Your task to perform on an android device: Empty the shopping cart on walmart.com. Add "razer blade" to the cart on walmart.com Image 0: 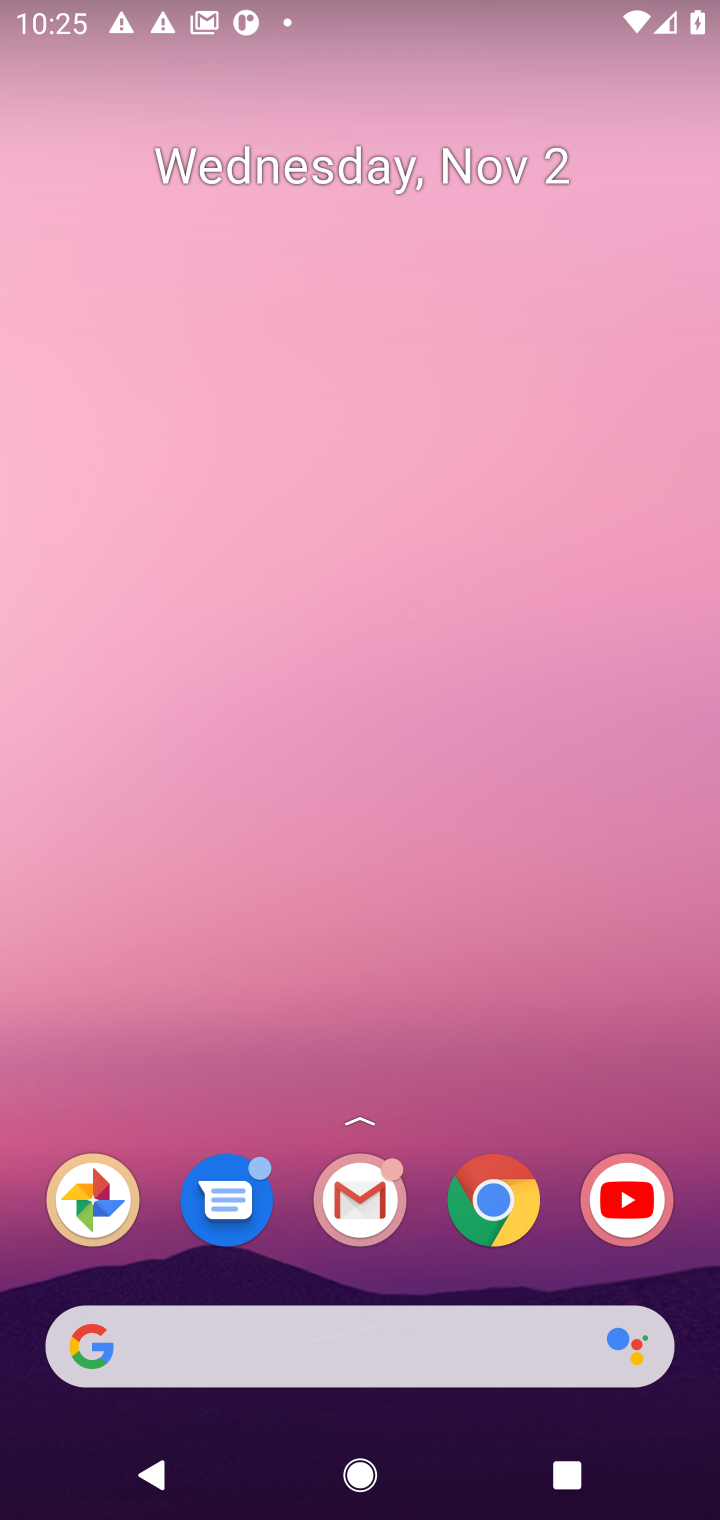
Step 0: click (478, 1213)
Your task to perform on an android device: Empty the shopping cart on walmart.com. Add "razer blade" to the cart on walmart.com Image 1: 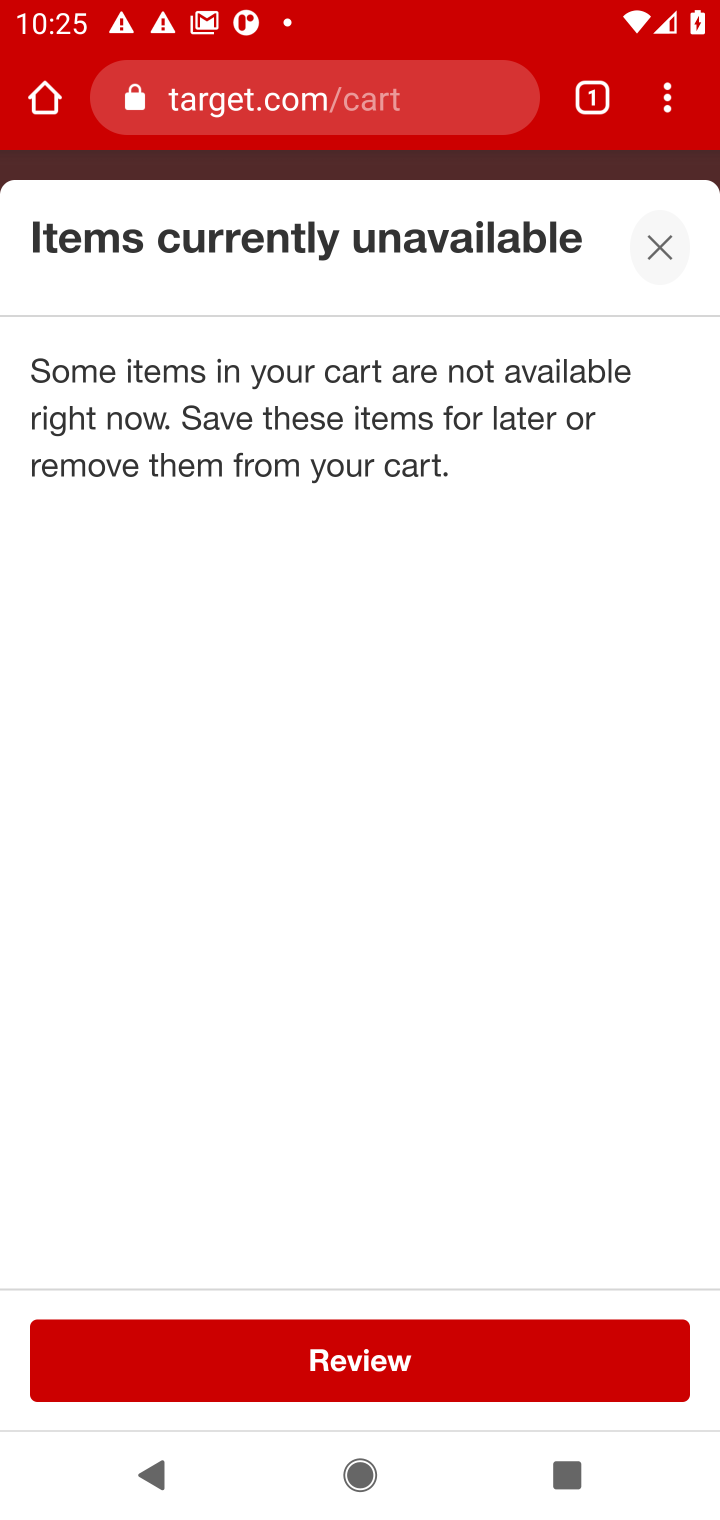
Step 1: click (439, 91)
Your task to perform on an android device: Empty the shopping cart on walmart.com. Add "razer blade" to the cart on walmart.com Image 2: 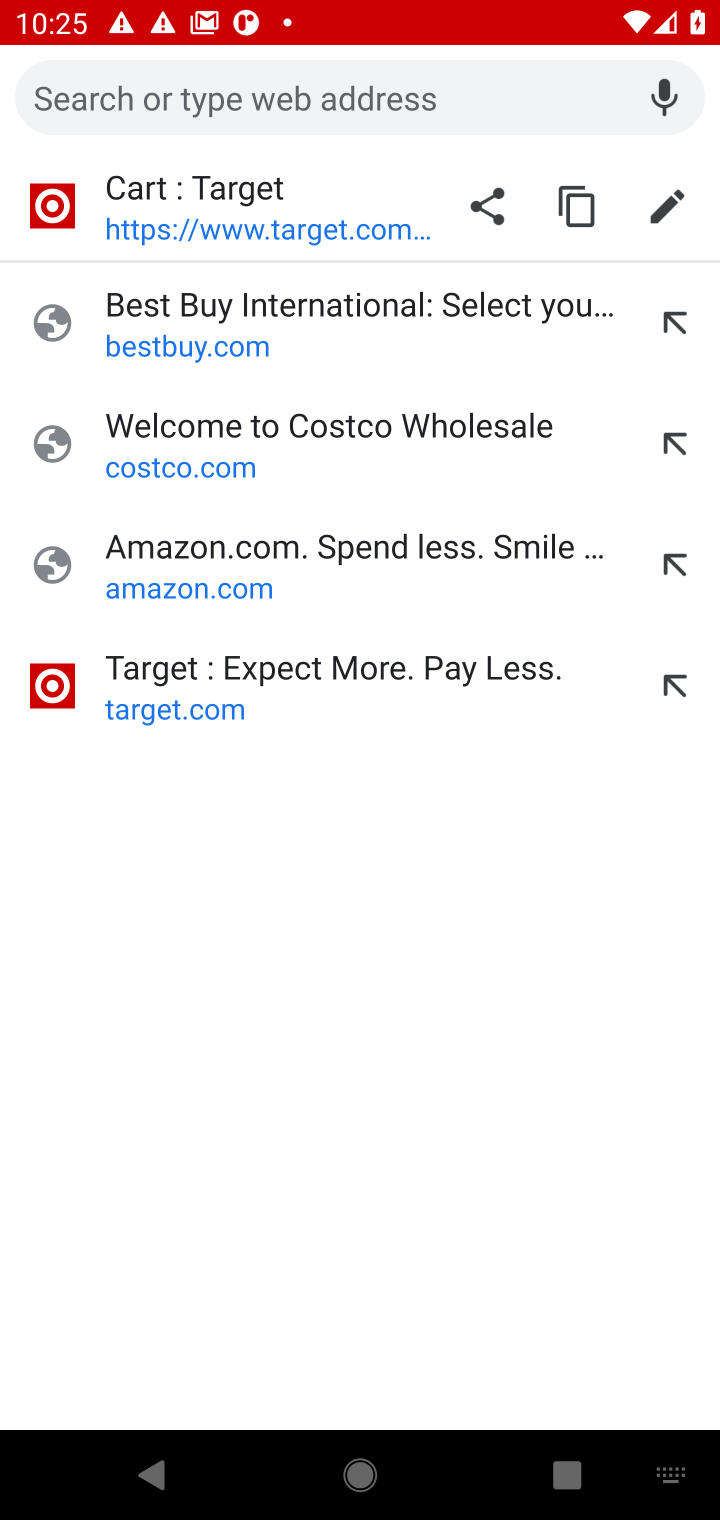
Step 2: type "walmart.com"
Your task to perform on an android device: Empty the shopping cart on walmart.com. Add "razer blade" to the cart on walmart.com Image 3: 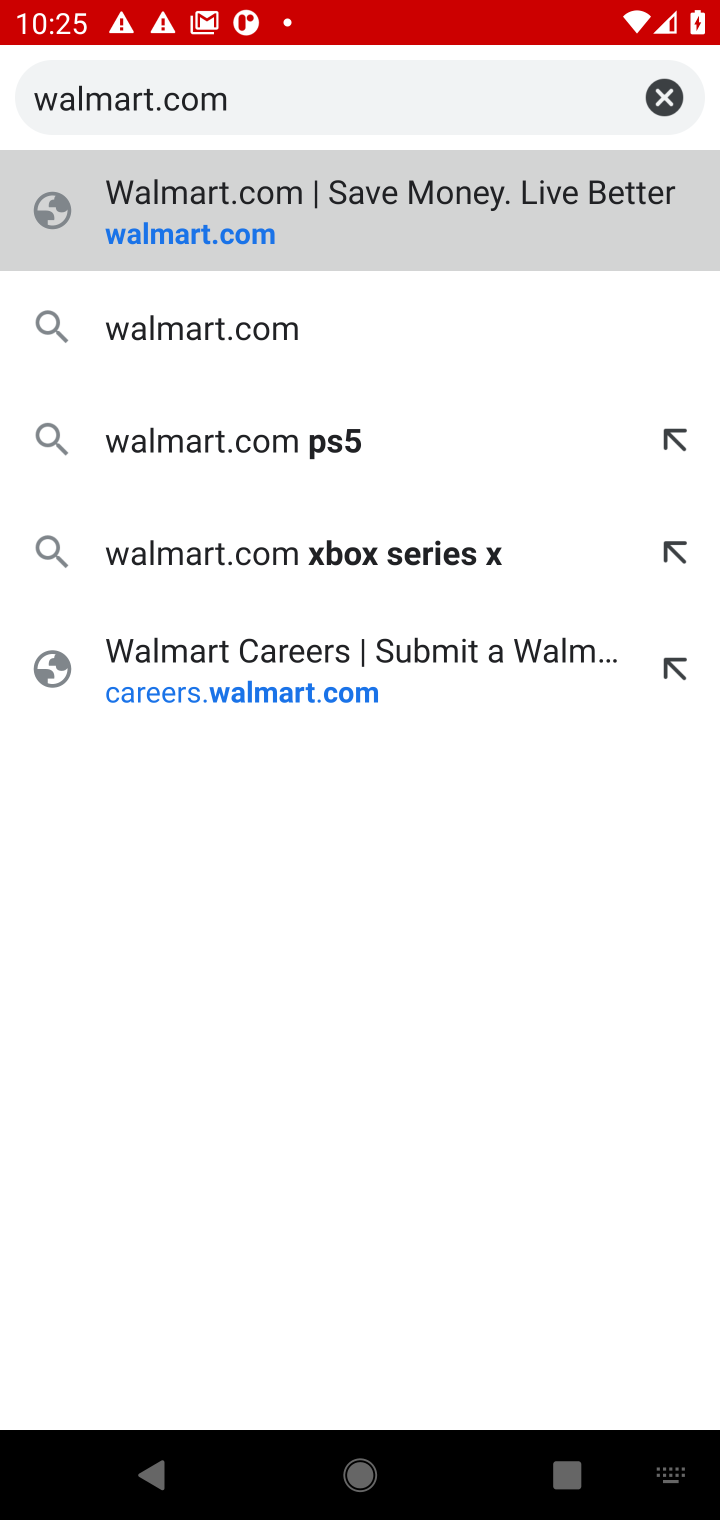
Step 3: press enter
Your task to perform on an android device: Empty the shopping cart on walmart.com. Add "razer blade" to the cart on walmart.com Image 4: 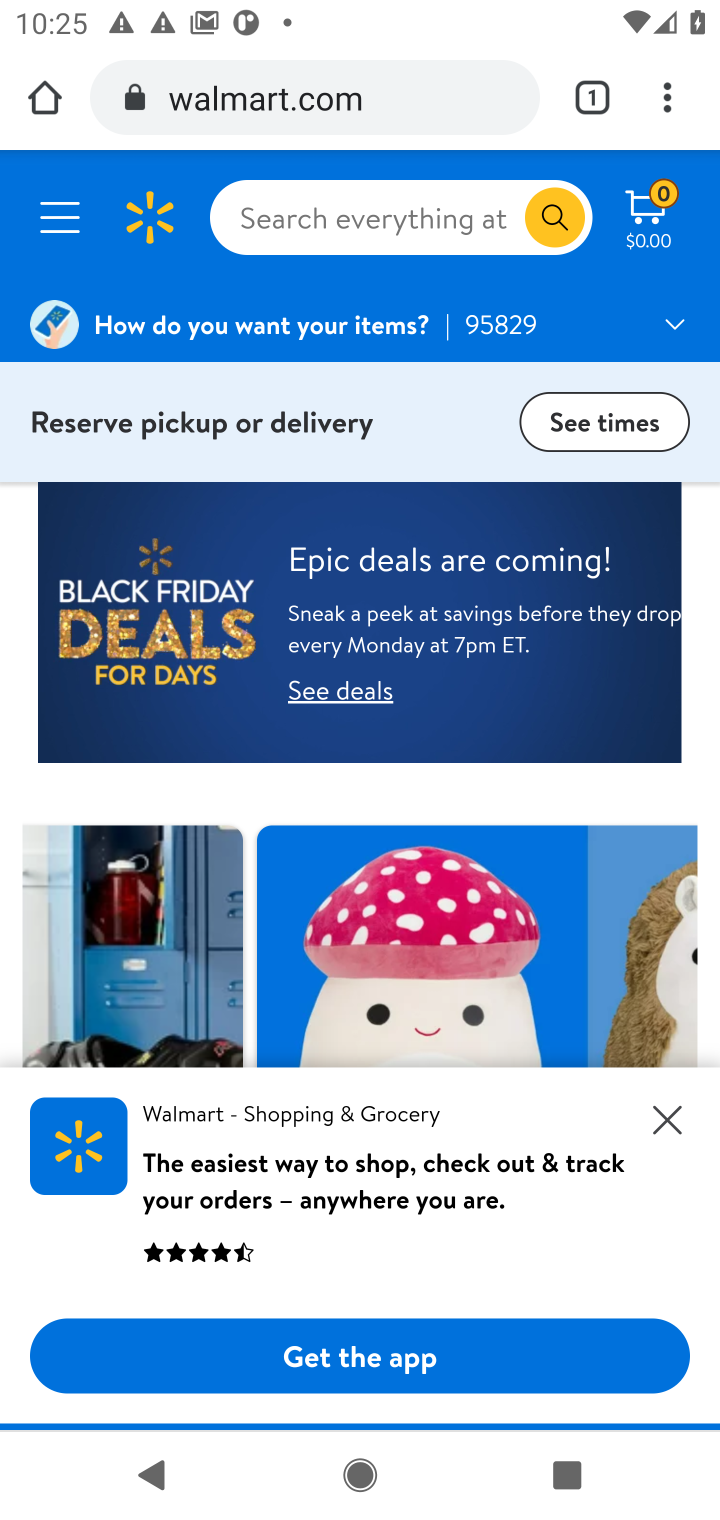
Step 4: click (641, 220)
Your task to perform on an android device: Empty the shopping cart on walmart.com. Add "razer blade" to the cart on walmart.com Image 5: 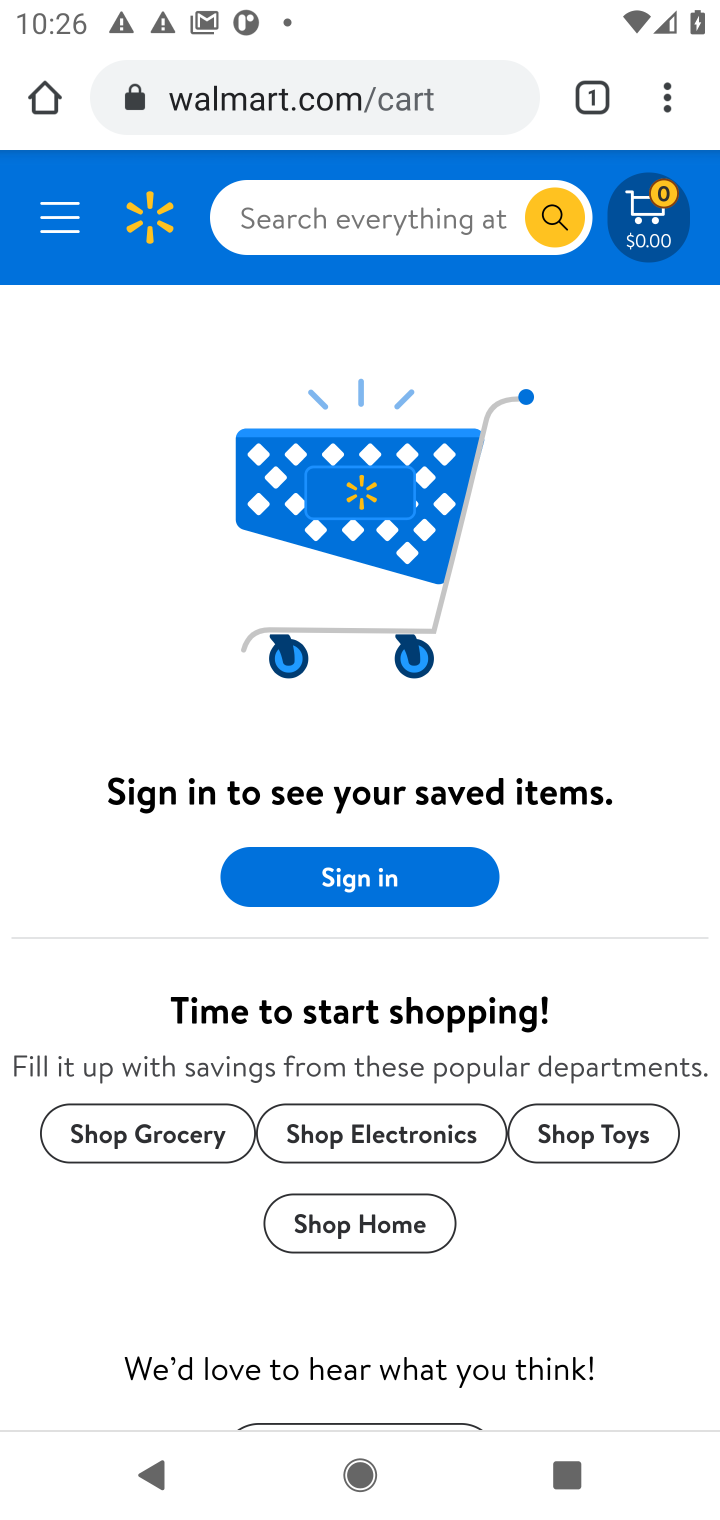
Step 5: click (393, 201)
Your task to perform on an android device: Empty the shopping cart on walmart.com. Add "razer blade" to the cart on walmart.com Image 6: 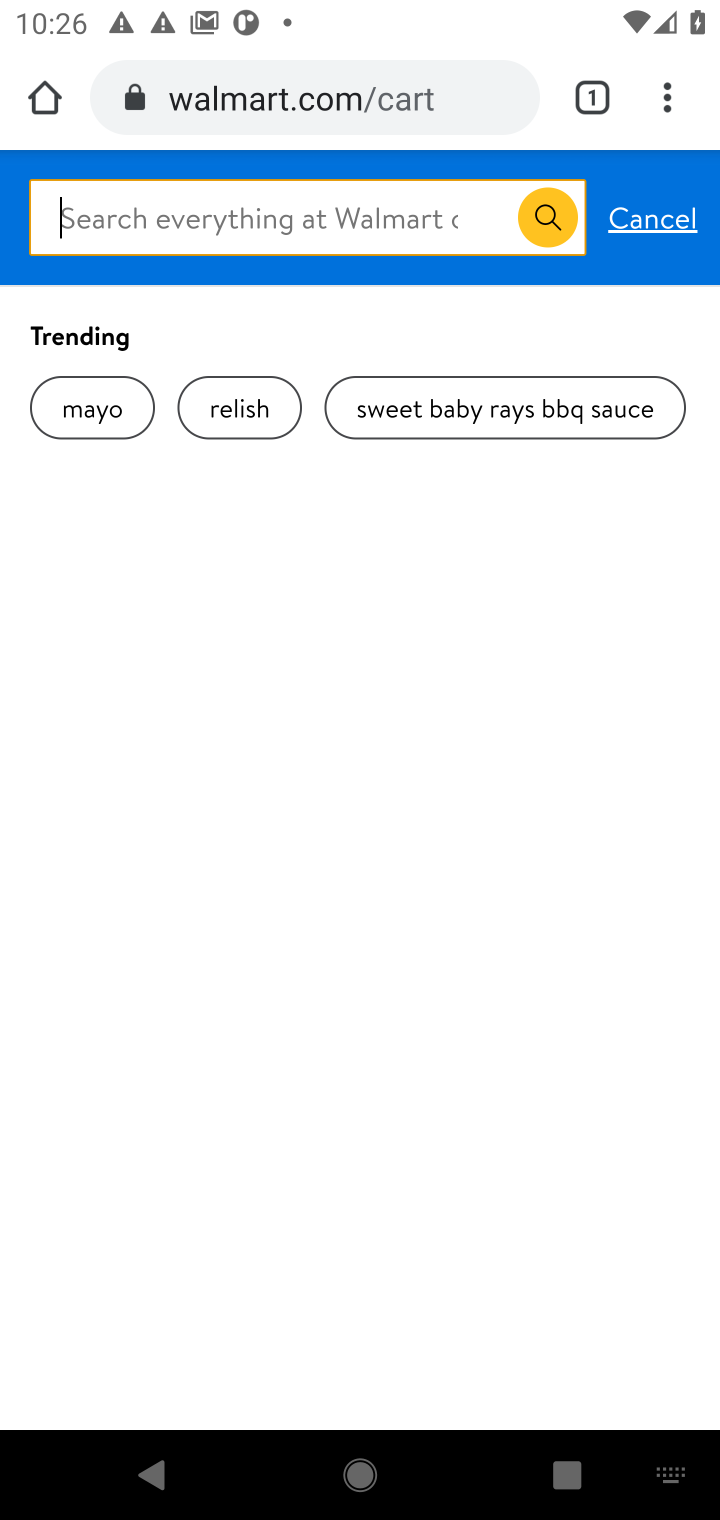
Step 6: type "razer blade"
Your task to perform on an android device: Empty the shopping cart on walmart.com. Add "razer blade" to the cart on walmart.com Image 7: 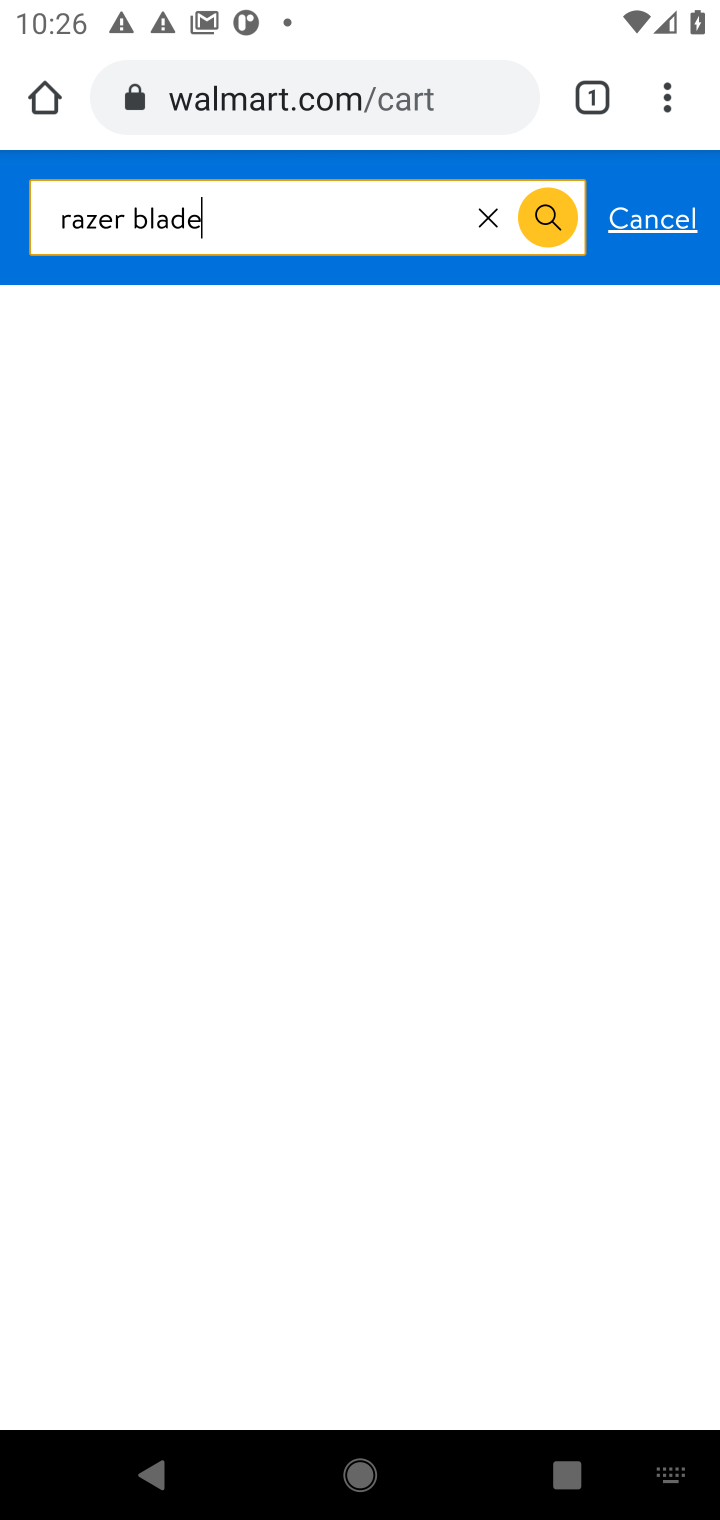
Step 7: press enter
Your task to perform on an android device: Empty the shopping cart on walmart.com. Add "razer blade" to the cart on walmart.com Image 8: 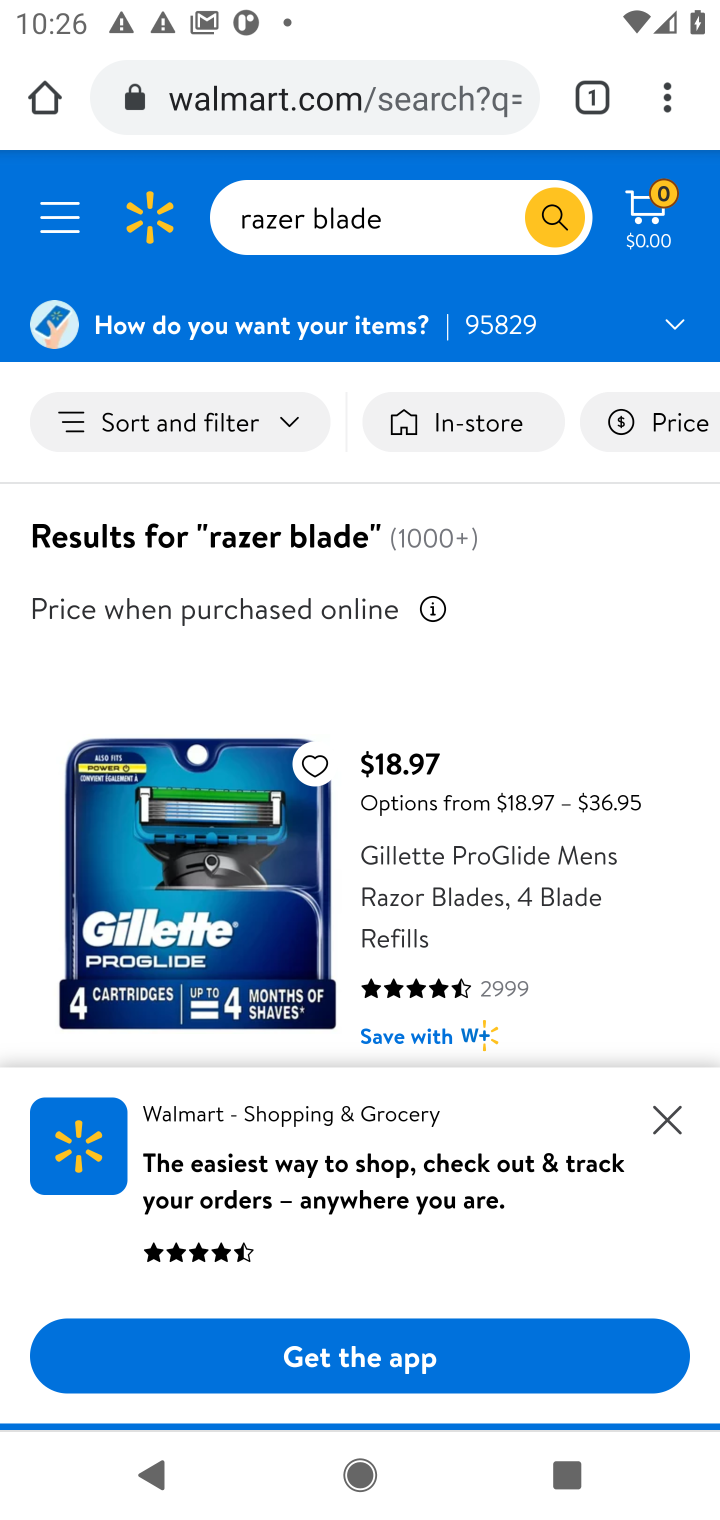
Step 8: click (666, 1110)
Your task to perform on an android device: Empty the shopping cart on walmart.com. Add "razer blade" to the cart on walmart.com Image 9: 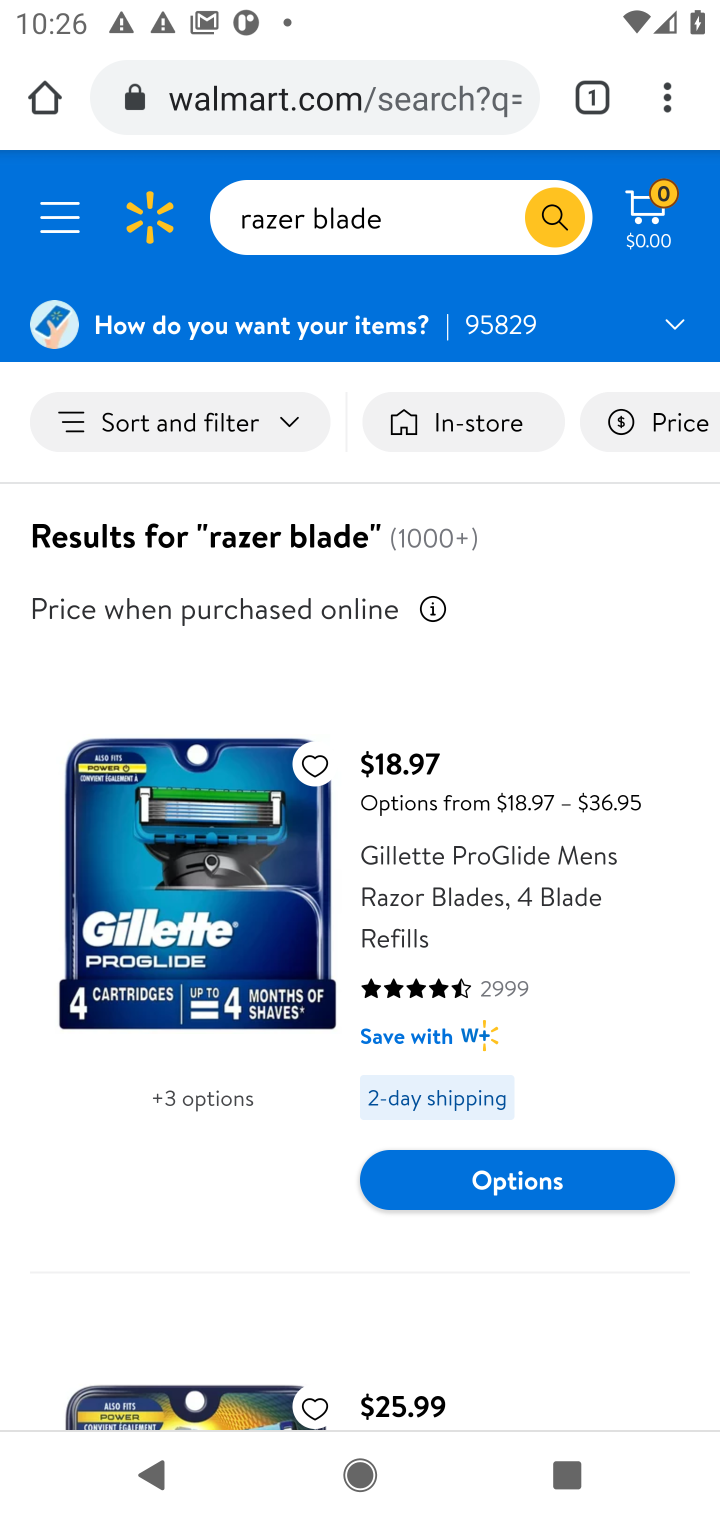
Step 9: click (227, 939)
Your task to perform on an android device: Empty the shopping cart on walmart.com. Add "razer blade" to the cart on walmart.com Image 10: 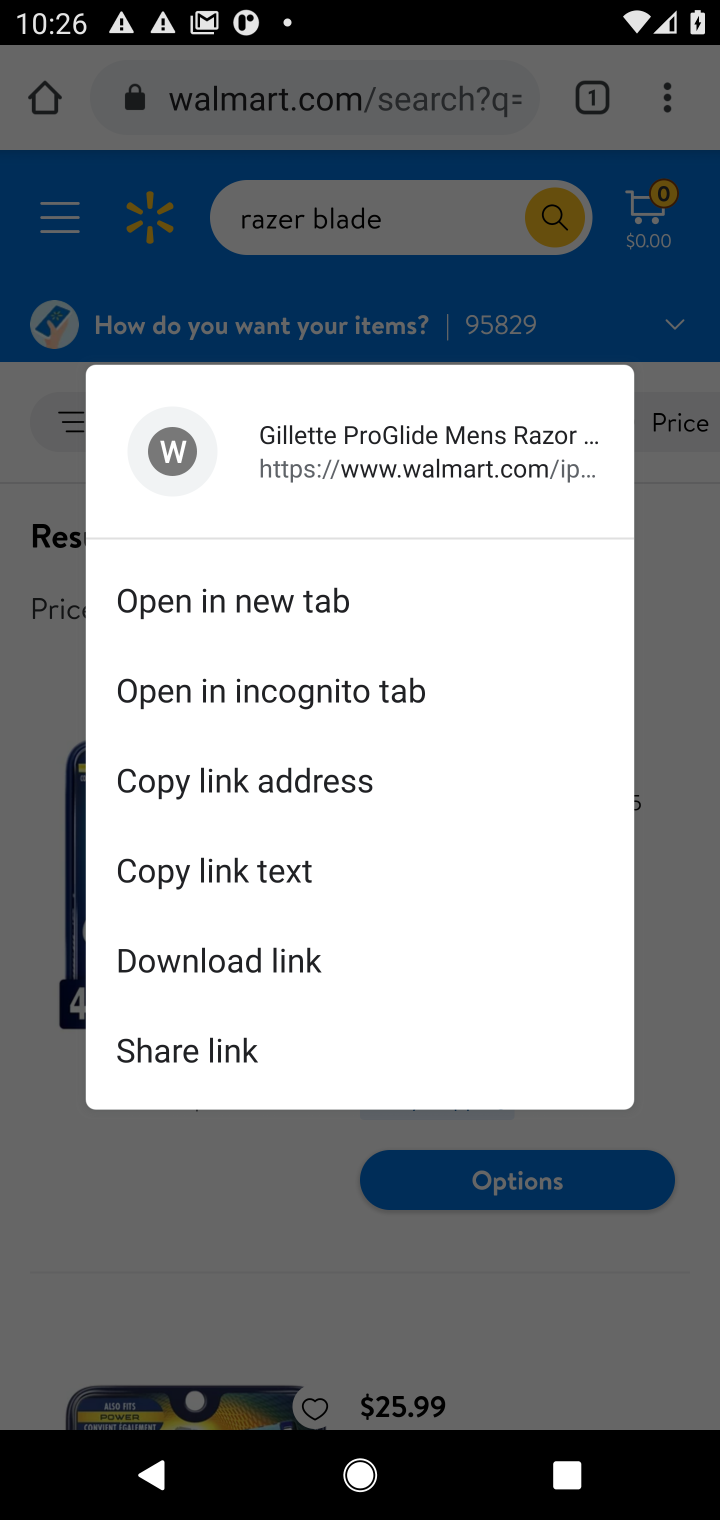
Step 10: click (265, 1241)
Your task to perform on an android device: Empty the shopping cart on walmart.com. Add "razer blade" to the cart on walmart.com Image 11: 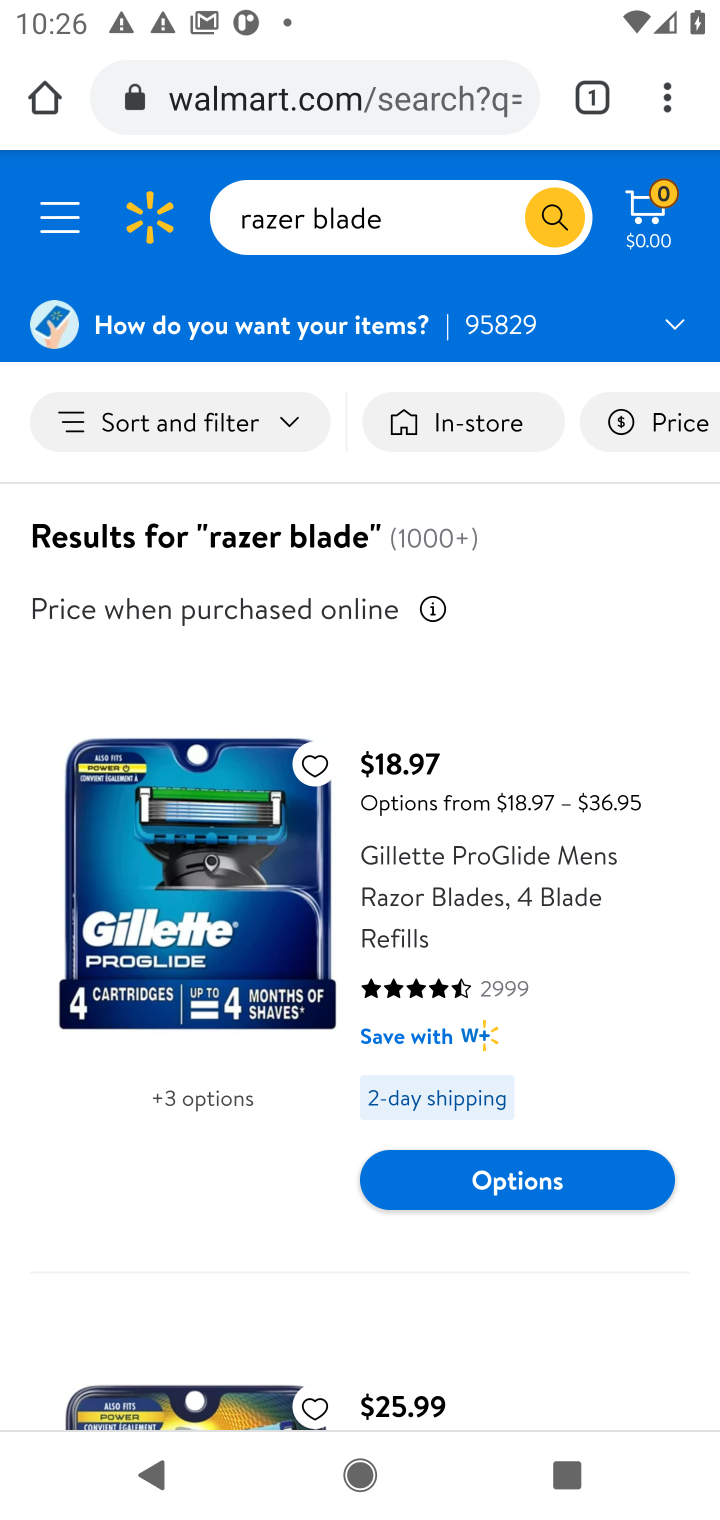
Step 11: click (98, 908)
Your task to perform on an android device: Empty the shopping cart on walmart.com. Add "razer blade" to the cart on walmart.com Image 12: 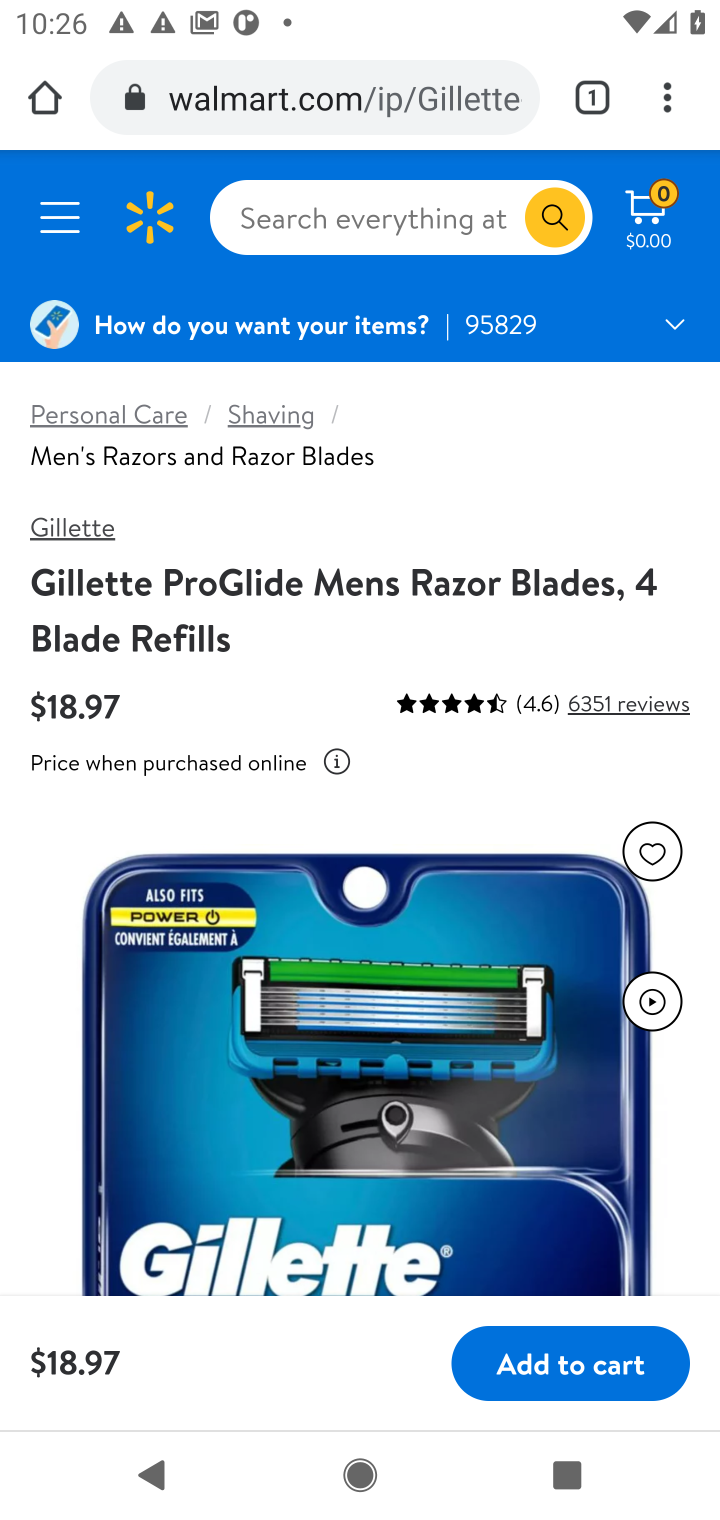
Step 12: click (558, 1371)
Your task to perform on an android device: Empty the shopping cart on walmart.com. Add "razer blade" to the cart on walmart.com Image 13: 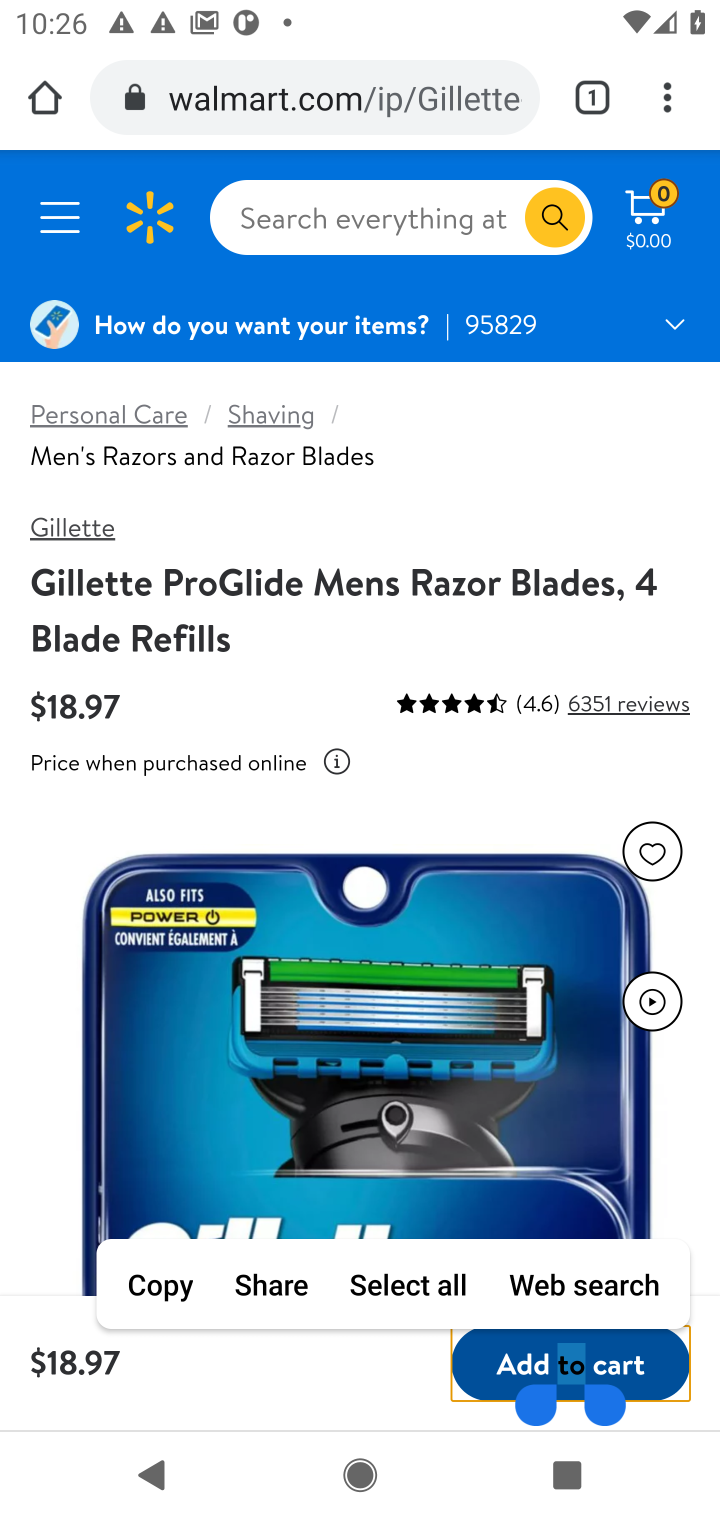
Step 13: click (268, 1405)
Your task to perform on an android device: Empty the shopping cart on walmart.com. Add "razer blade" to the cart on walmart.com Image 14: 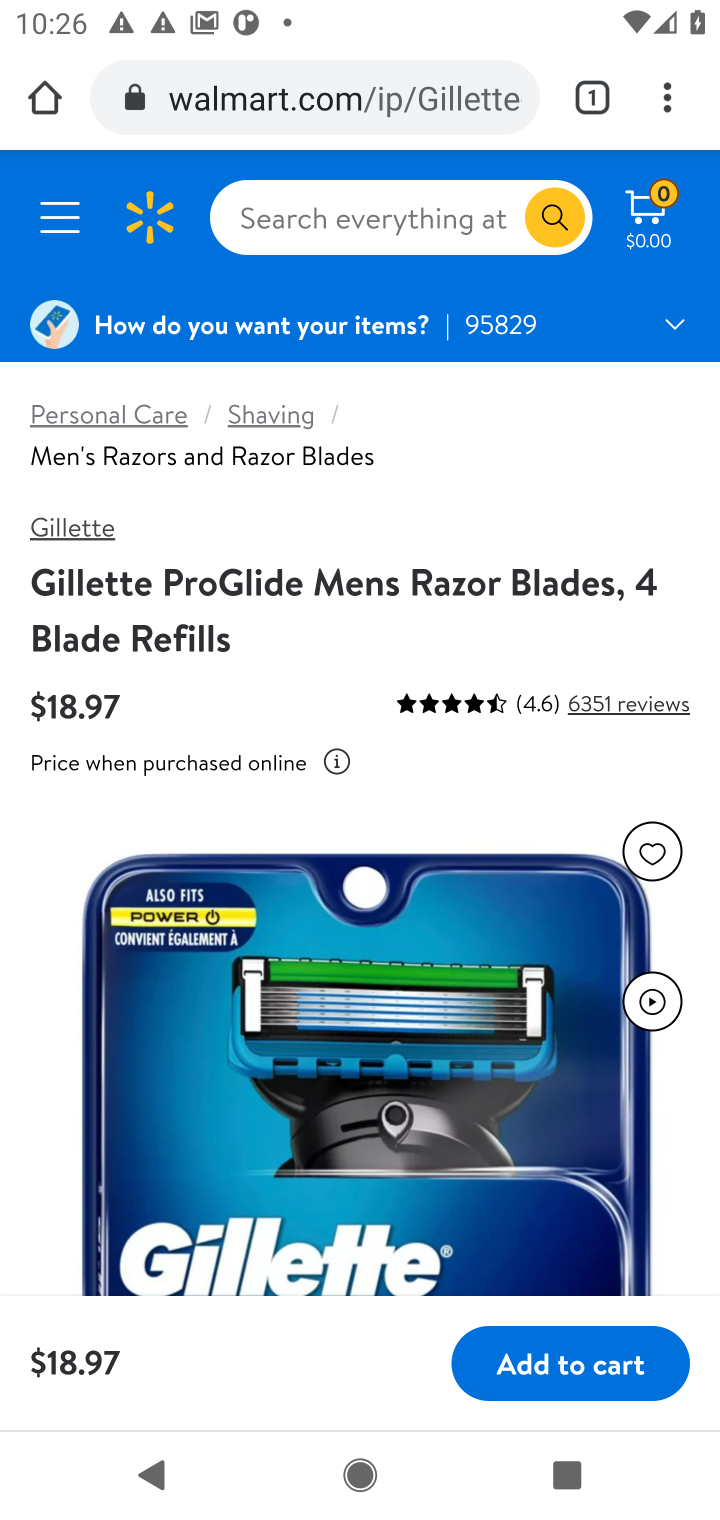
Step 14: click (545, 1365)
Your task to perform on an android device: Empty the shopping cart on walmart.com. Add "razer blade" to the cart on walmart.com Image 15: 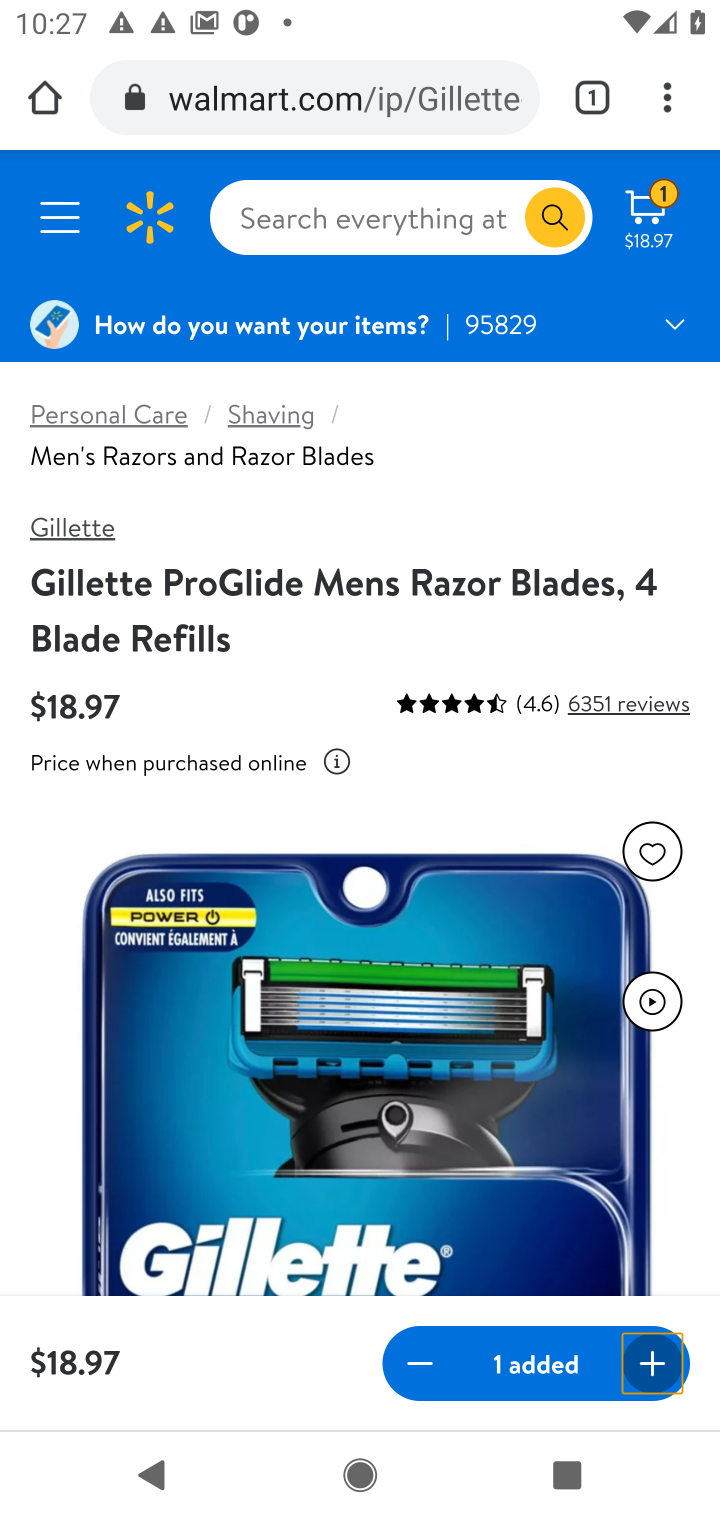
Step 15: task complete